Your task to perform on an android device: Open network settings Image 0: 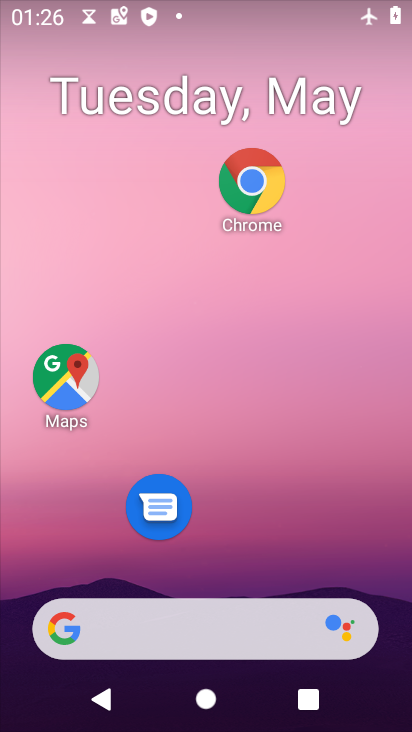
Step 0: drag from (294, 369) to (303, 218)
Your task to perform on an android device: Open network settings Image 1: 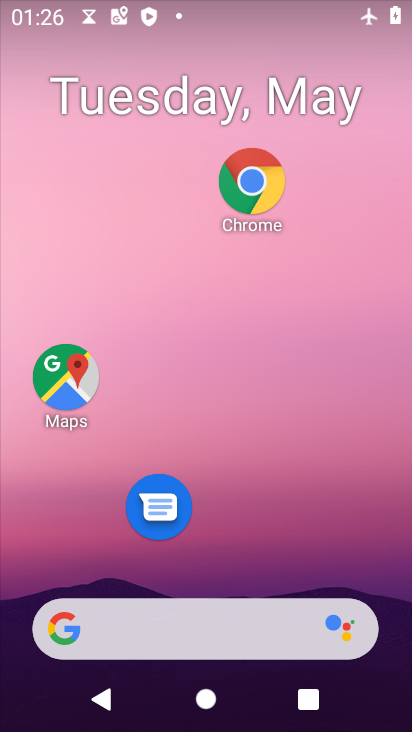
Step 1: drag from (300, 523) to (329, 203)
Your task to perform on an android device: Open network settings Image 2: 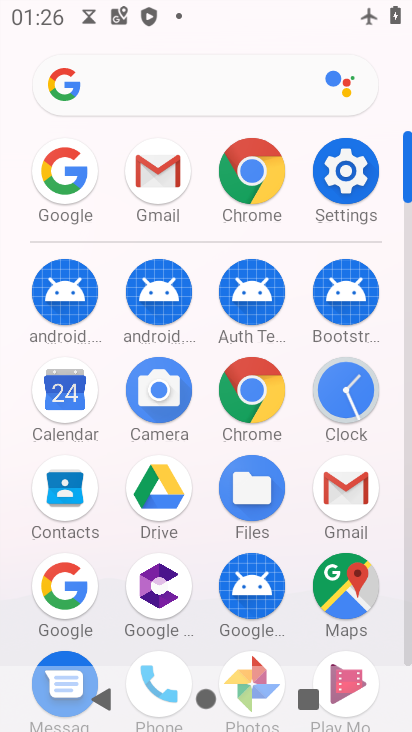
Step 2: click (347, 173)
Your task to perform on an android device: Open network settings Image 3: 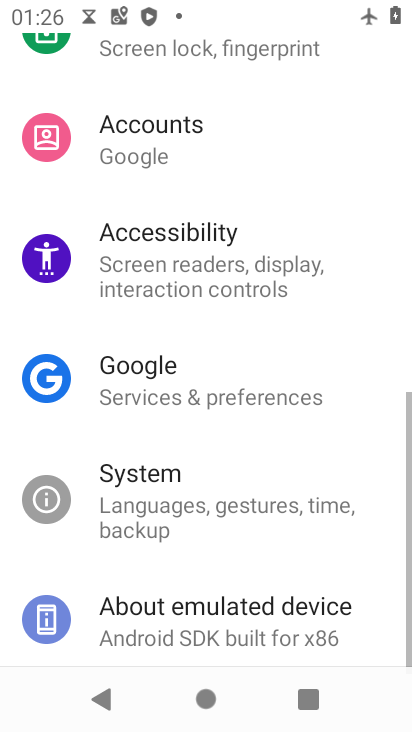
Step 3: drag from (201, 87) to (174, 606)
Your task to perform on an android device: Open network settings Image 4: 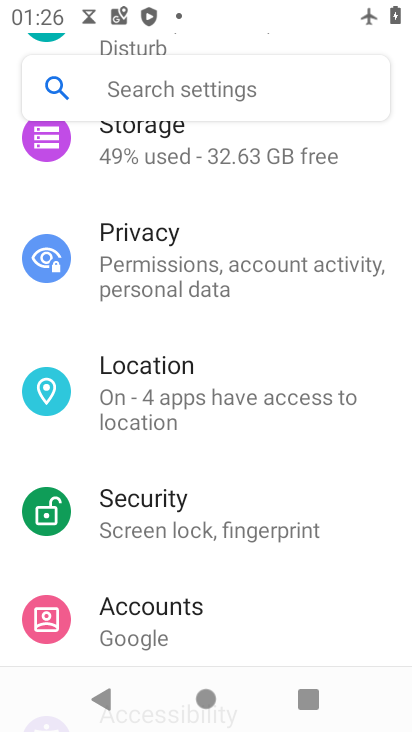
Step 4: drag from (217, 175) to (194, 433)
Your task to perform on an android device: Open network settings Image 5: 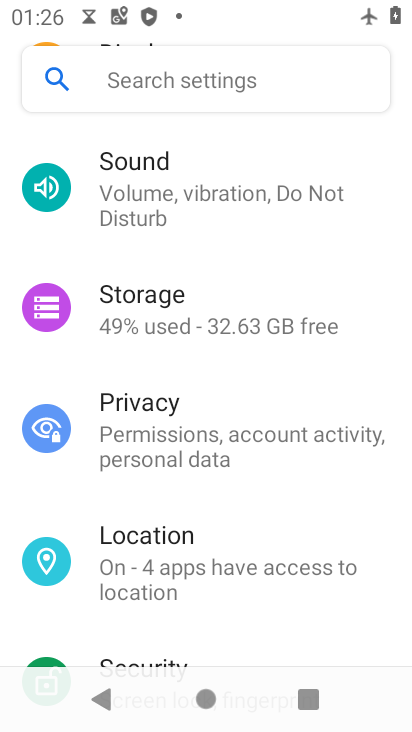
Step 5: drag from (218, 140) to (250, 552)
Your task to perform on an android device: Open network settings Image 6: 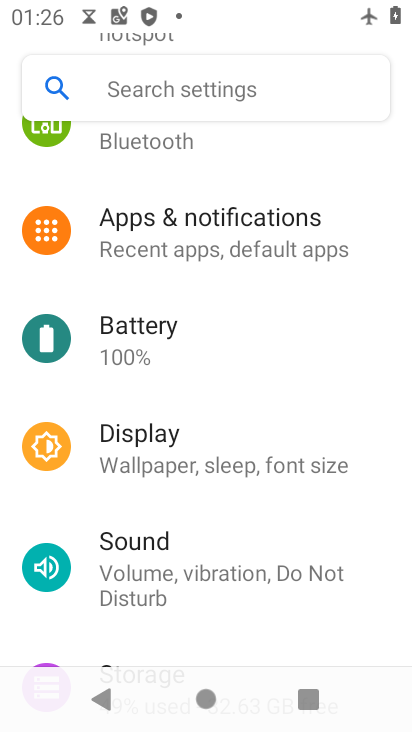
Step 6: drag from (189, 166) to (213, 528)
Your task to perform on an android device: Open network settings Image 7: 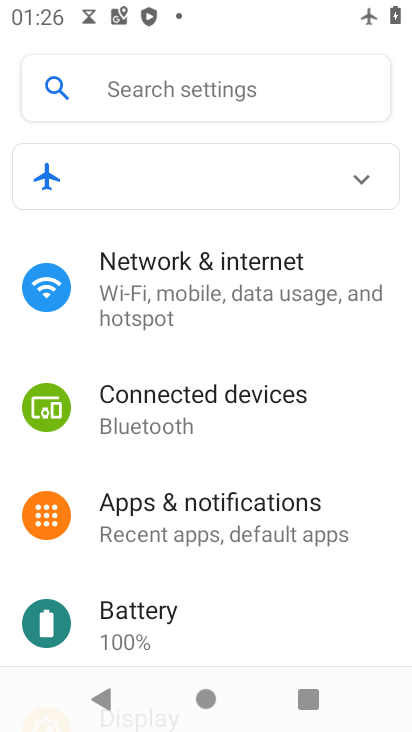
Step 7: click (180, 303)
Your task to perform on an android device: Open network settings Image 8: 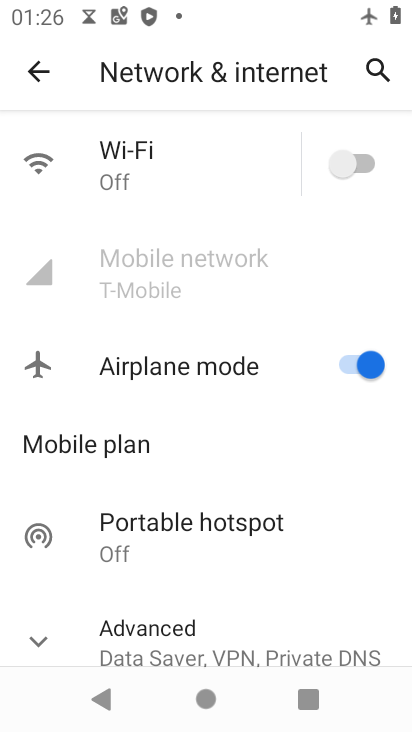
Step 8: task complete